Your task to perform on an android device: turn off priority inbox in the gmail app Image 0: 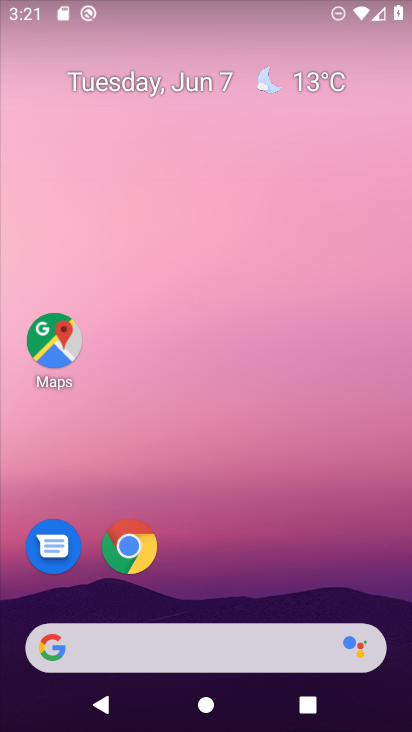
Step 0: press home button
Your task to perform on an android device: turn off priority inbox in the gmail app Image 1: 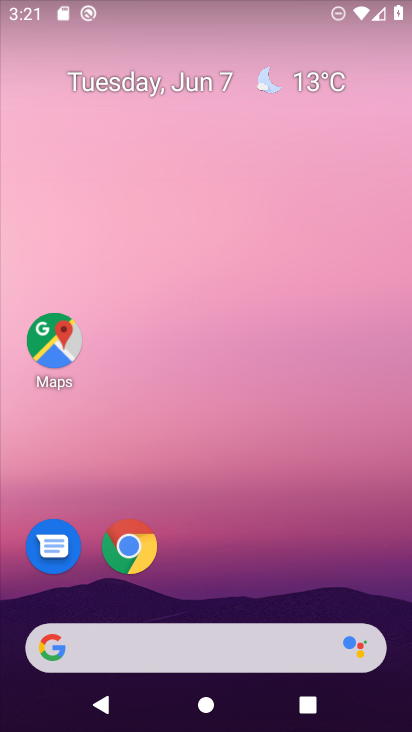
Step 1: press home button
Your task to perform on an android device: turn off priority inbox in the gmail app Image 2: 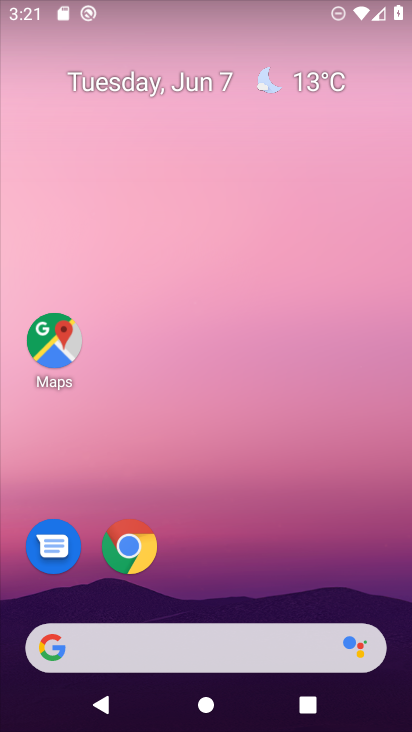
Step 2: drag from (118, 459) to (351, 161)
Your task to perform on an android device: turn off priority inbox in the gmail app Image 3: 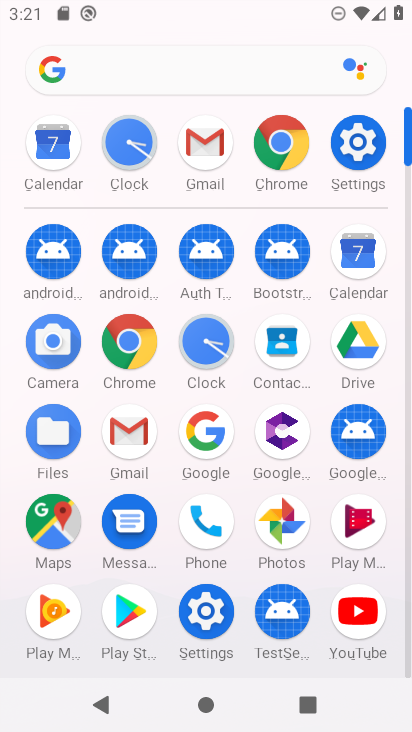
Step 3: click (196, 156)
Your task to perform on an android device: turn off priority inbox in the gmail app Image 4: 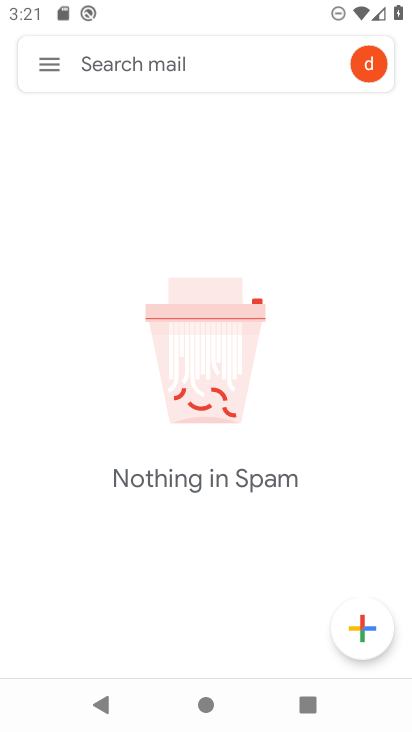
Step 4: click (54, 71)
Your task to perform on an android device: turn off priority inbox in the gmail app Image 5: 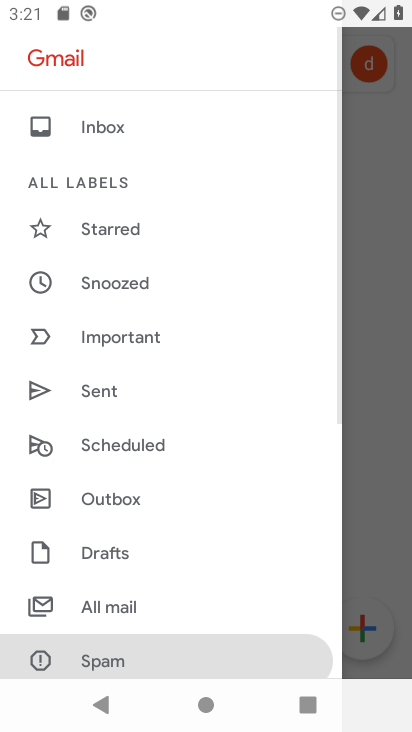
Step 5: drag from (4, 522) to (259, 66)
Your task to perform on an android device: turn off priority inbox in the gmail app Image 6: 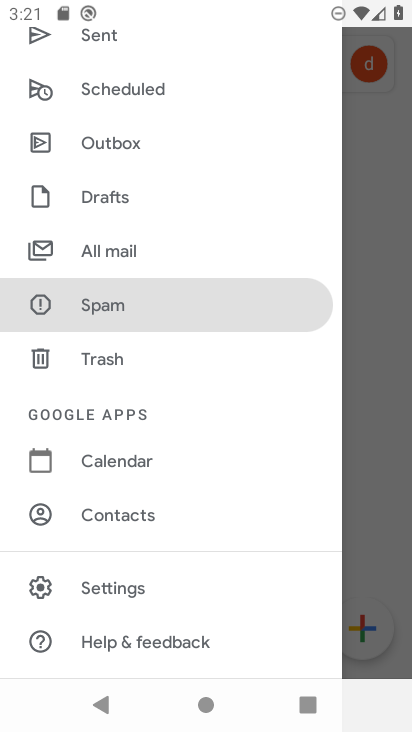
Step 6: click (78, 581)
Your task to perform on an android device: turn off priority inbox in the gmail app Image 7: 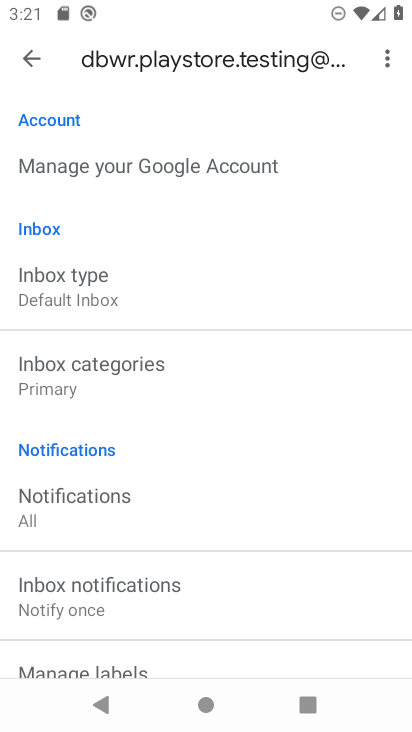
Step 7: task complete